Your task to perform on an android device: Open Amazon Image 0: 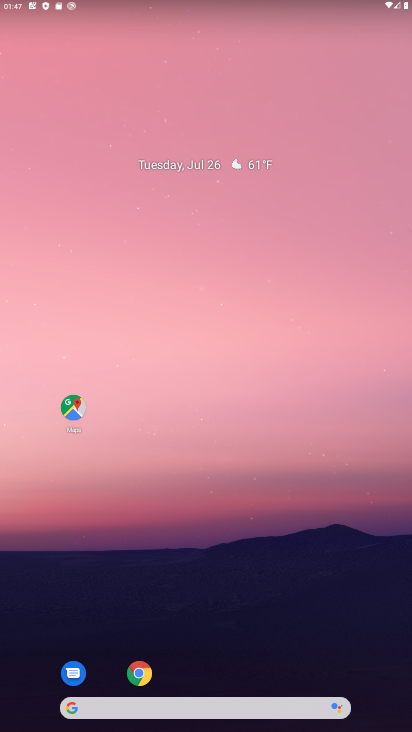
Step 0: click (134, 671)
Your task to perform on an android device: Open Amazon Image 1: 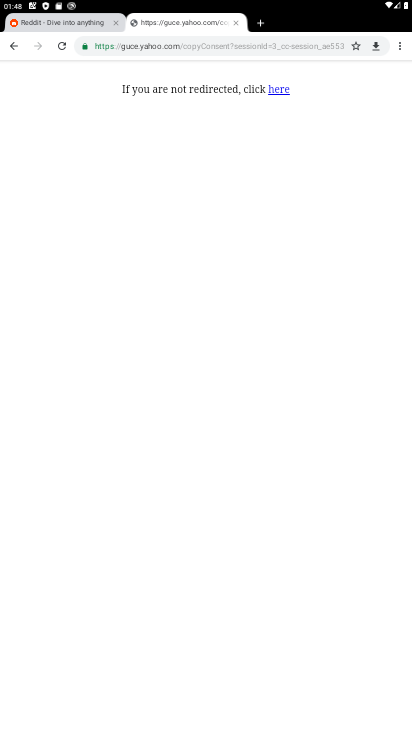
Step 1: click (399, 48)
Your task to perform on an android device: Open Amazon Image 2: 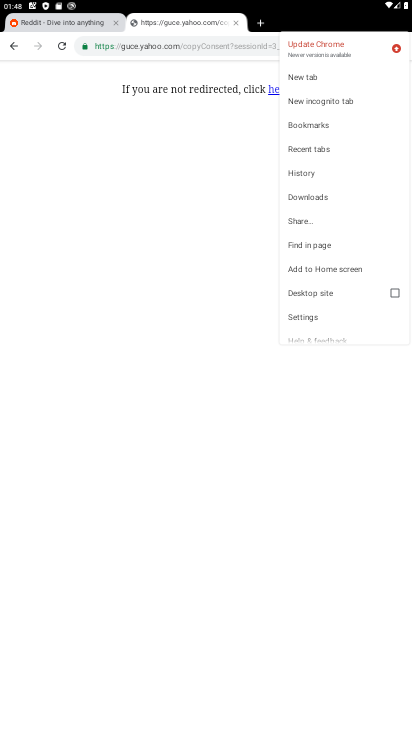
Step 2: click (301, 76)
Your task to perform on an android device: Open Amazon Image 3: 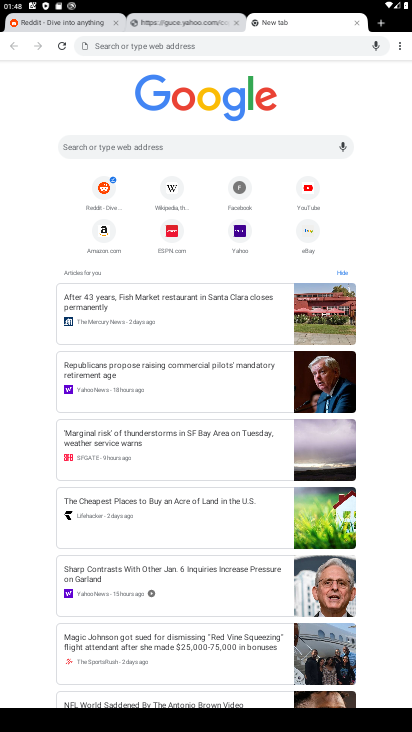
Step 3: click (102, 233)
Your task to perform on an android device: Open Amazon Image 4: 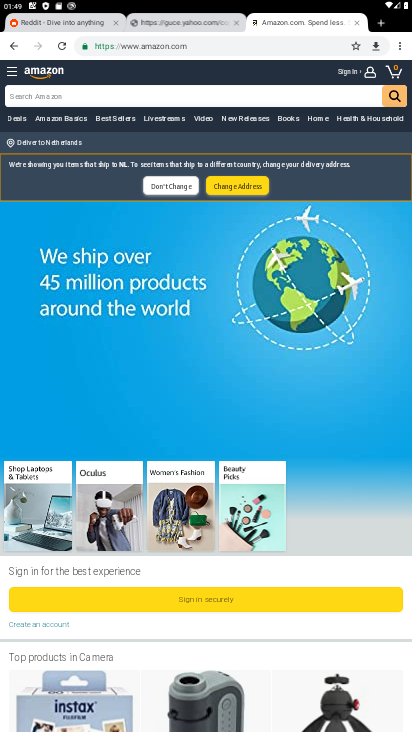
Step 4: task complete